Your task to perform on an android device: Search for Italian restaurants on Maps Image 0: 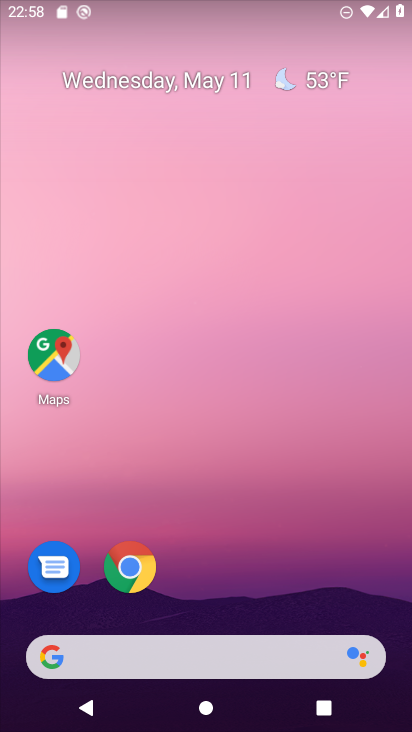
Step 0: click (42, 383)
Your task to perform on an android device: Search for Italian restaurants on Maps Image 1: 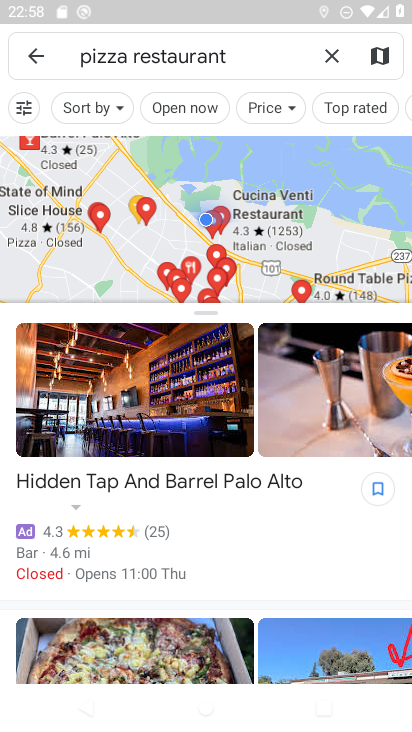
Step 1: click (331, 61)
Your task to perform on an android device: Search for Italian restaurants on Maps Image 2: 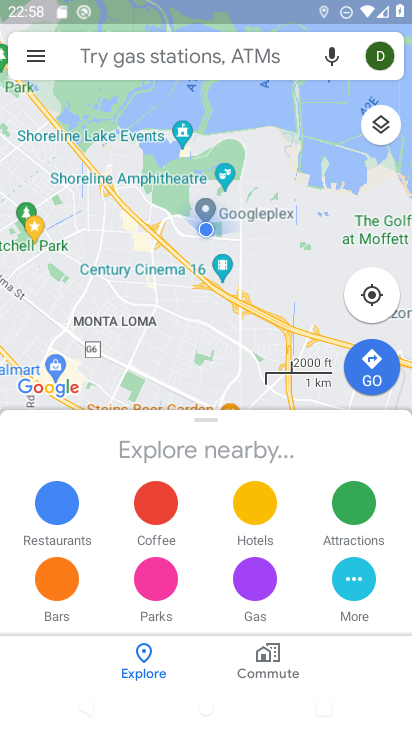
Step 2: click (239, 47)
Your task to perform on an android device: Search for Italian restaurants on Maps Image 3: 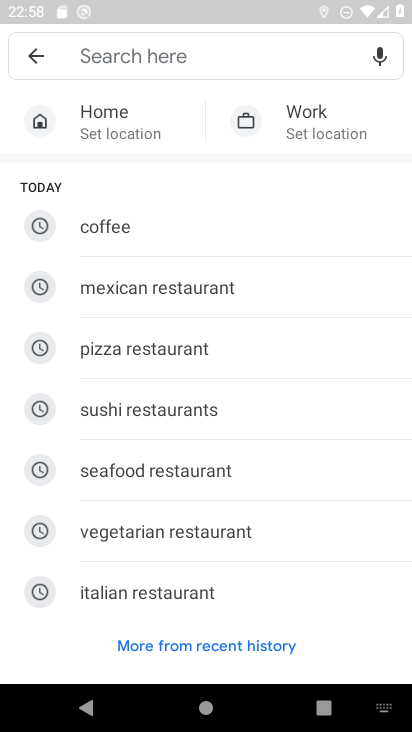
Step 3: click (127, 591)
Your task to perform on an android device: Search for Italian restaurants on Maps Image 4: 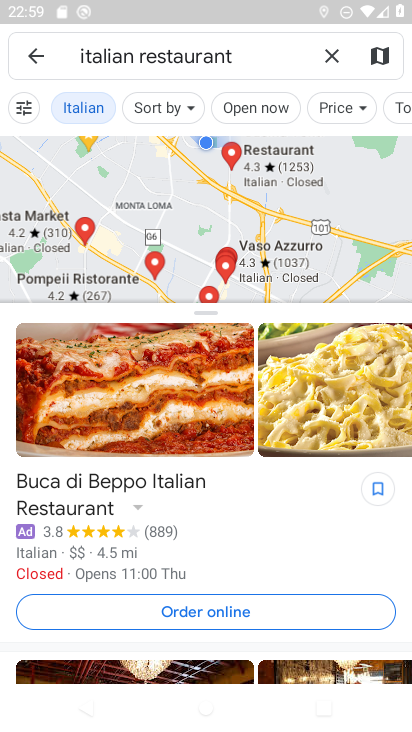
Step 4: task complete